Your task to perform on an android device: turn on priority inbox in the gmail app Image 0: 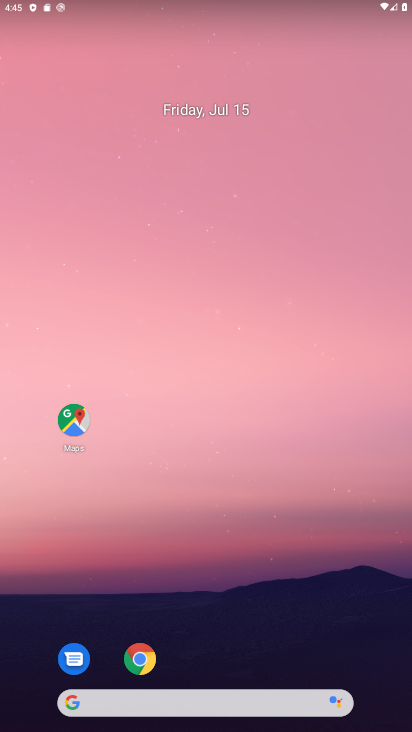
Step 0: drag from (223, 533) to (190, 213)
Your task to perform on an android device: turn on priority inbox in the gmail app Image 1: 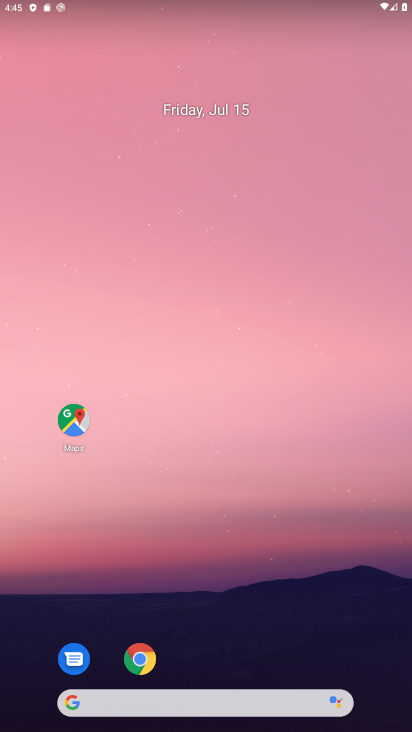
Step 1: drag from (223, 585) to (185, 95)
Your task to perform on an android device: turn on priority inbox in the gmail app Image 2: 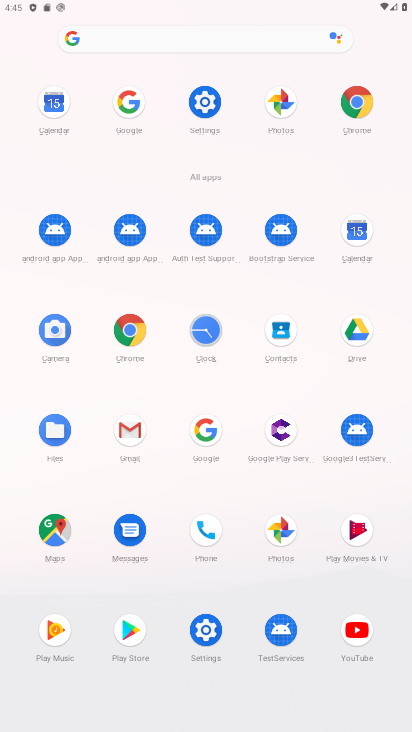
Step 2: click (127, 436)
Your task to perform on an android device: turn on priority inbox in the gmail app Image 3: 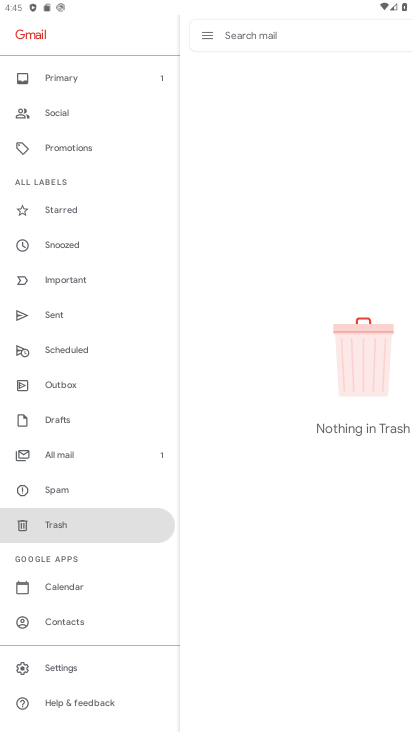
Step 3: click (66, 668)
Your task to perform on an android device: turn on priority inbox in the gmail app Image 4: 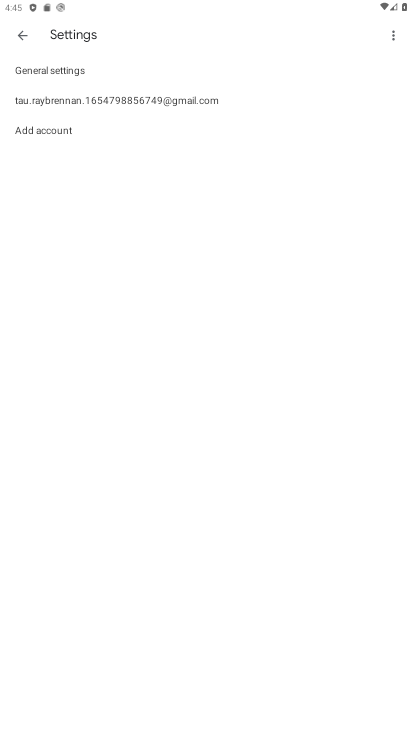
Step 4: click (40, 107)
Your task to perform on an android device: turn on priority inbox in the gmail app Image 5: 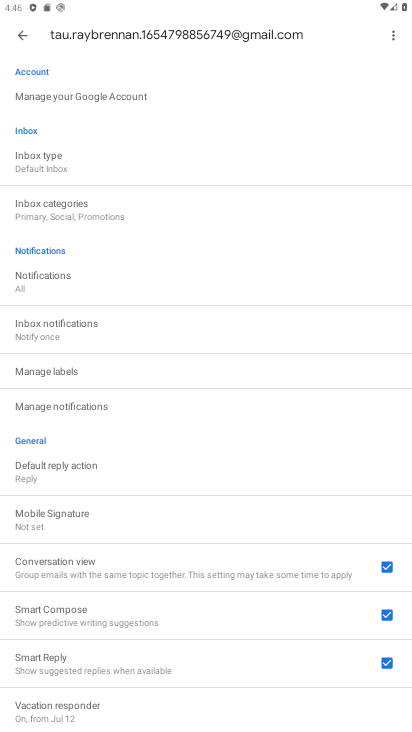
Step 5: click (51, 167)
Your task to perform on an android device: turn on priority inbox in the gmail app Image 6: 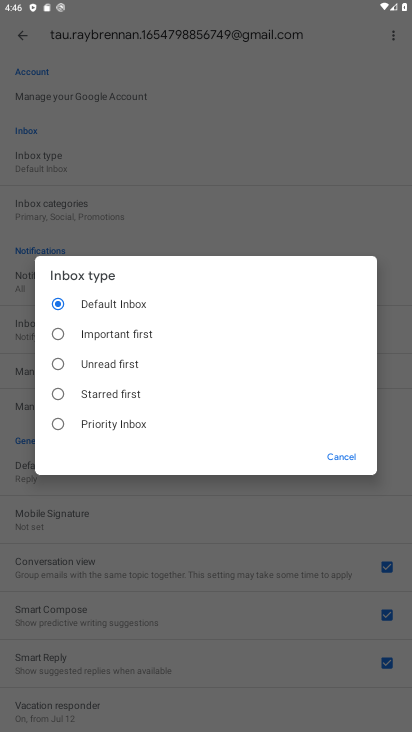
Step 6: click (108, 426)
Your task to perform on an android device: turn on priority inbox in the gmail app Image 7: 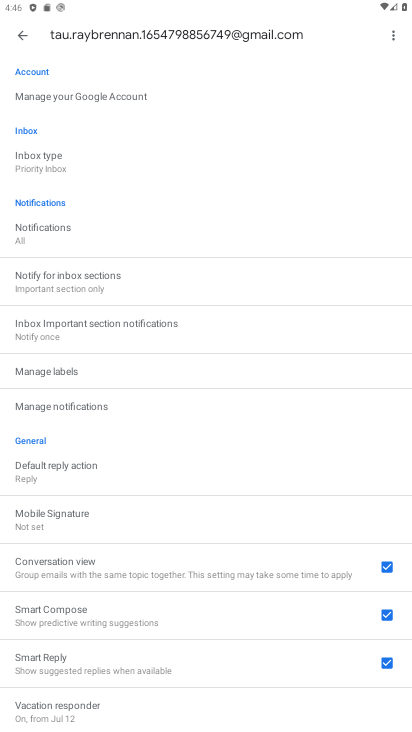
Step 7: task complete